Your task to perform on an android device: set default search engine in the chrome app Image 0: 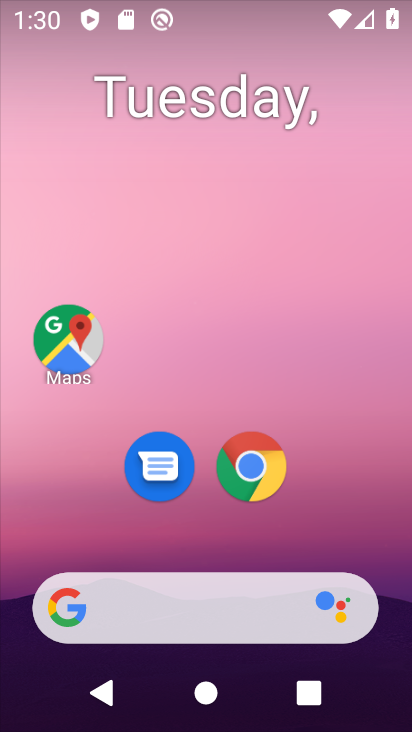
Step 0: task complete